Your task to perform on an android device: open app "Clock" Image 0: 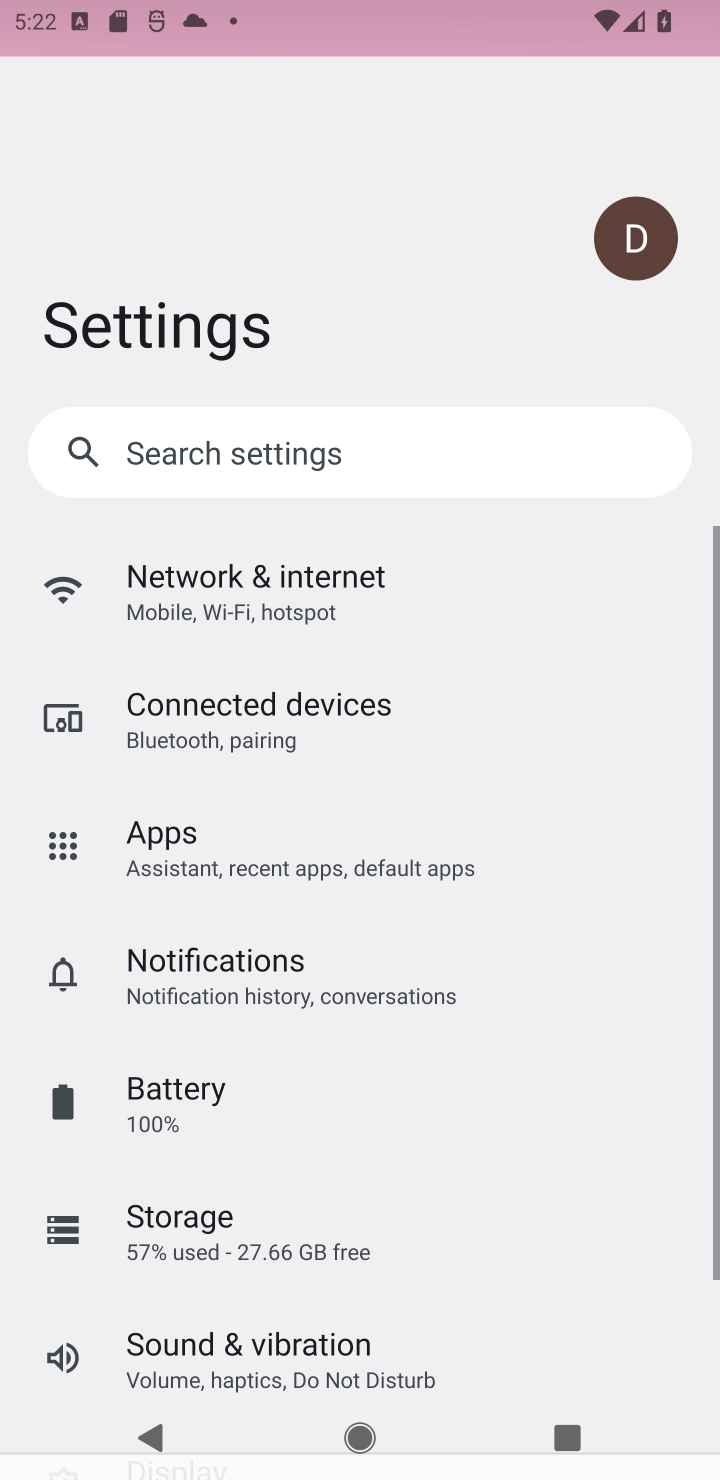
Step 0: press home button
Your task to perform on an android device: open app "Clock" Image 1: 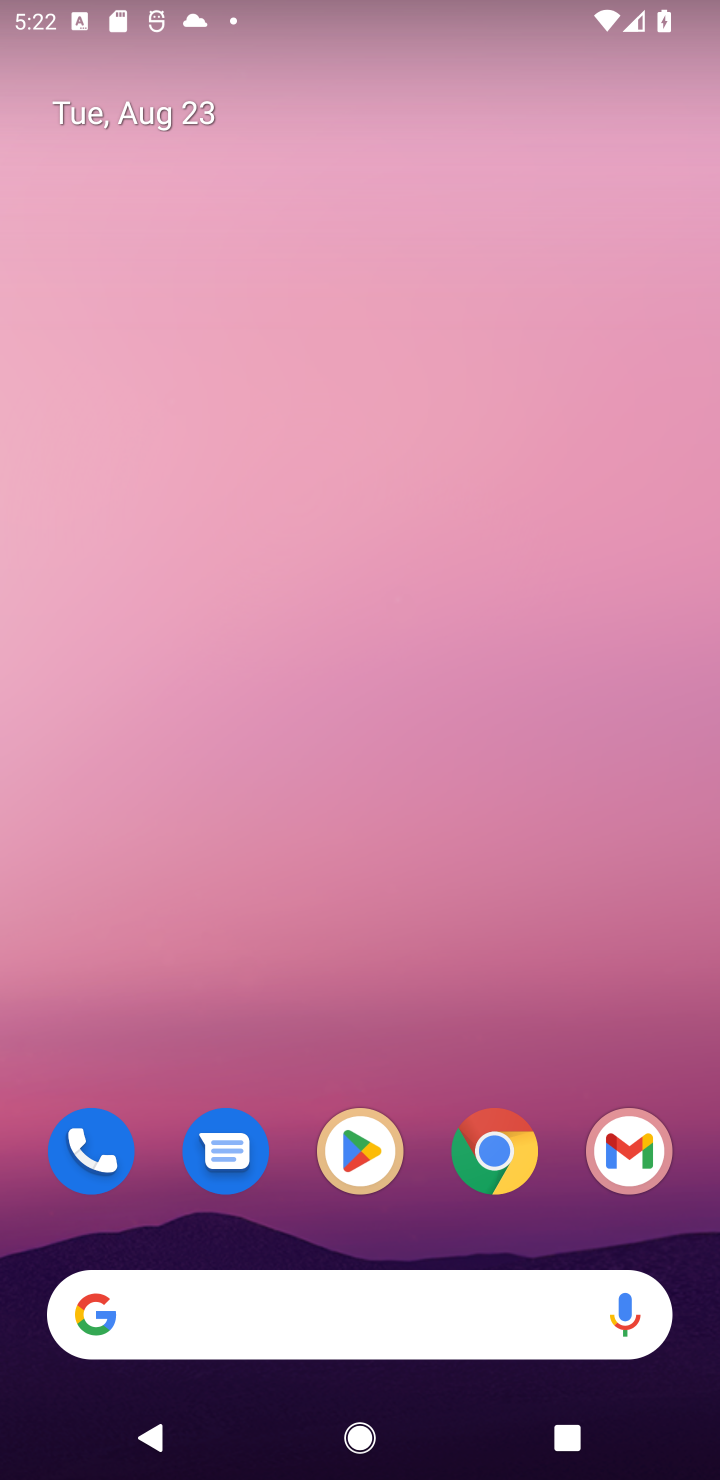
Step 1: click (365, 1162)
Your task to perform on an android device: open app "Clock" Image 2: 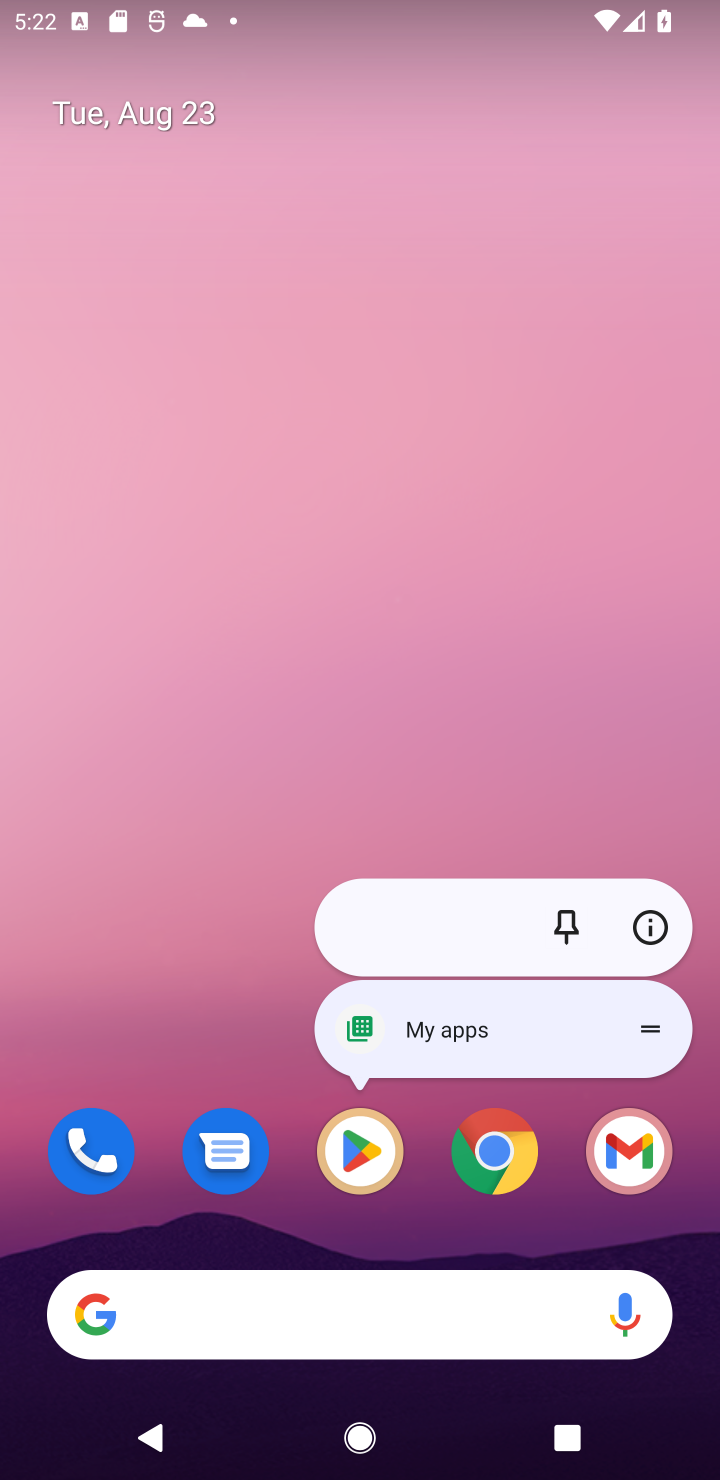
Step 2: click (377, 1157)
Your task to perform on an android device: open app "Clock" Image 3: 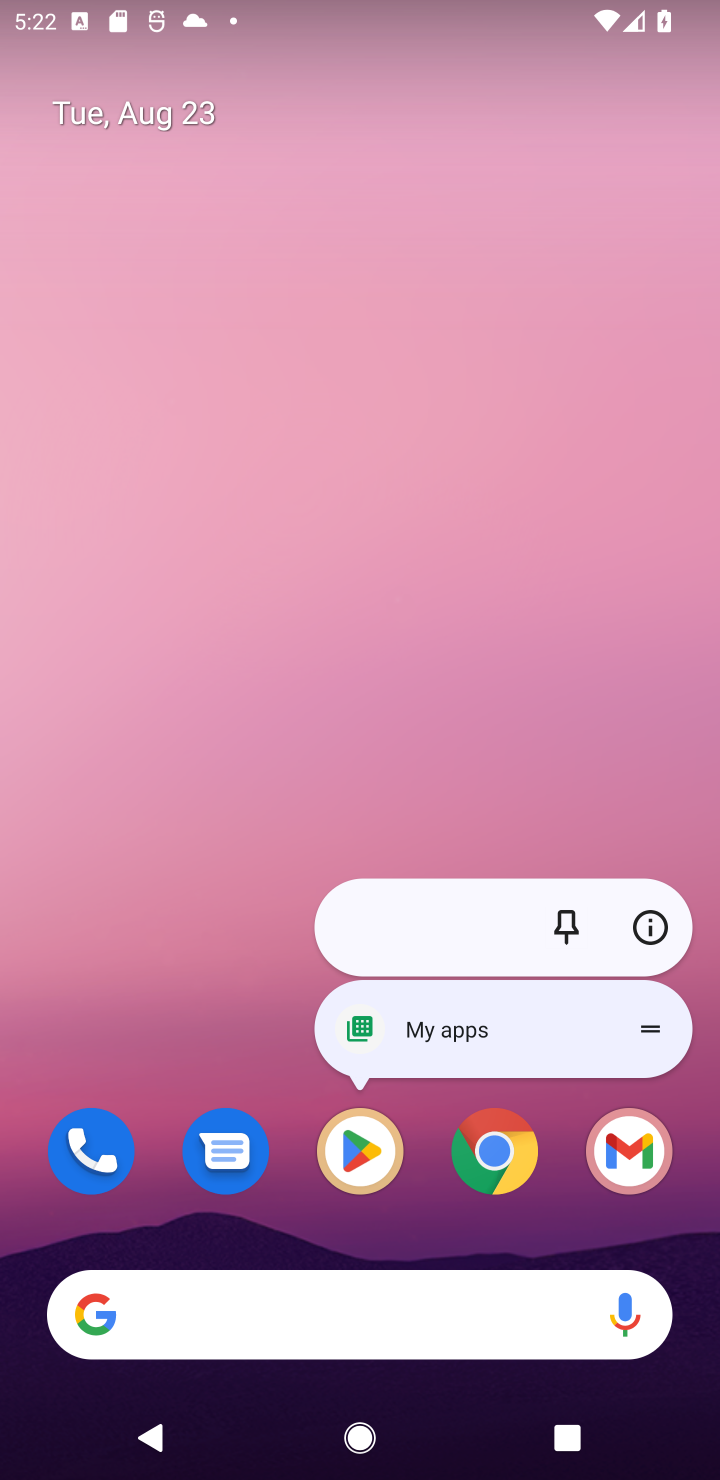
Step 3: click (344, 1163)
Your task to perform on an android device: open app "Clock" Image 4: 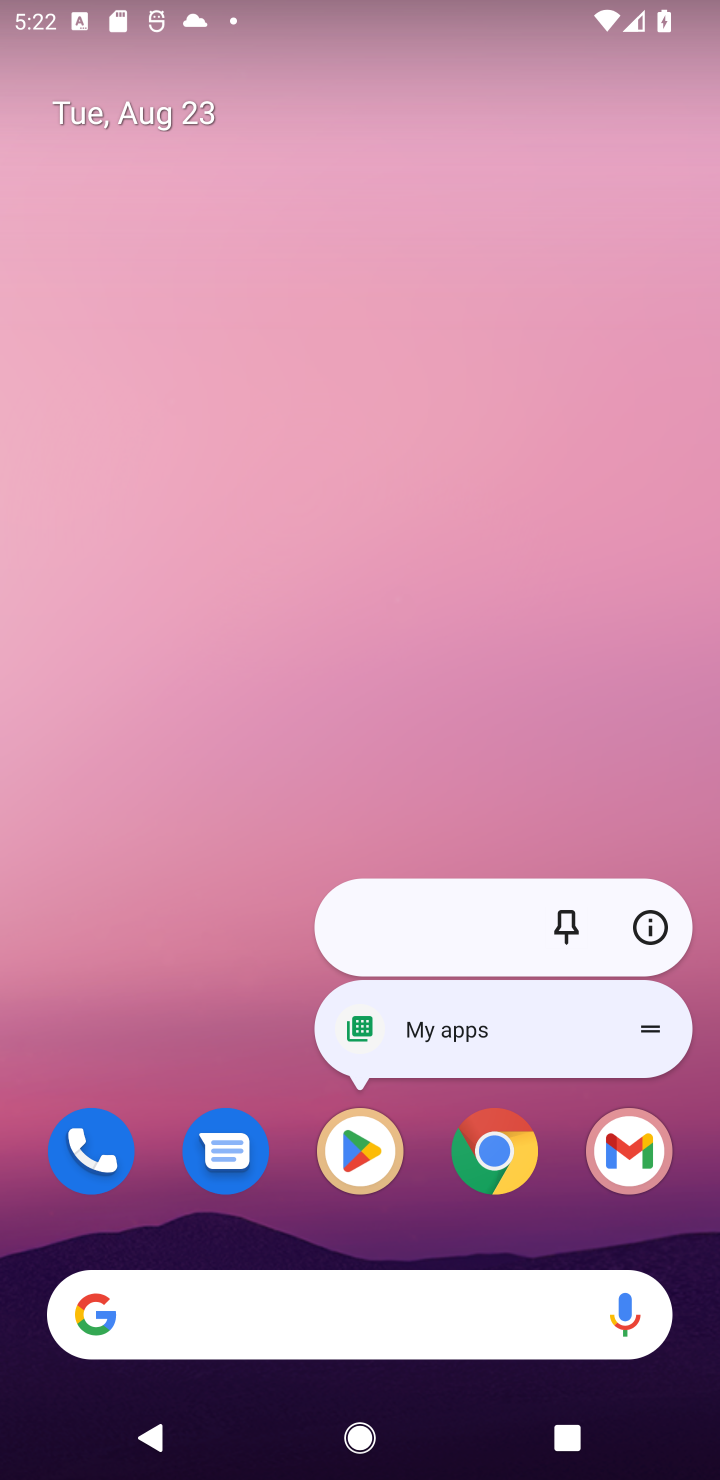
Step 4: click (345, 1168)
Your task to perform on an android device: open app "Clock" Image 5: 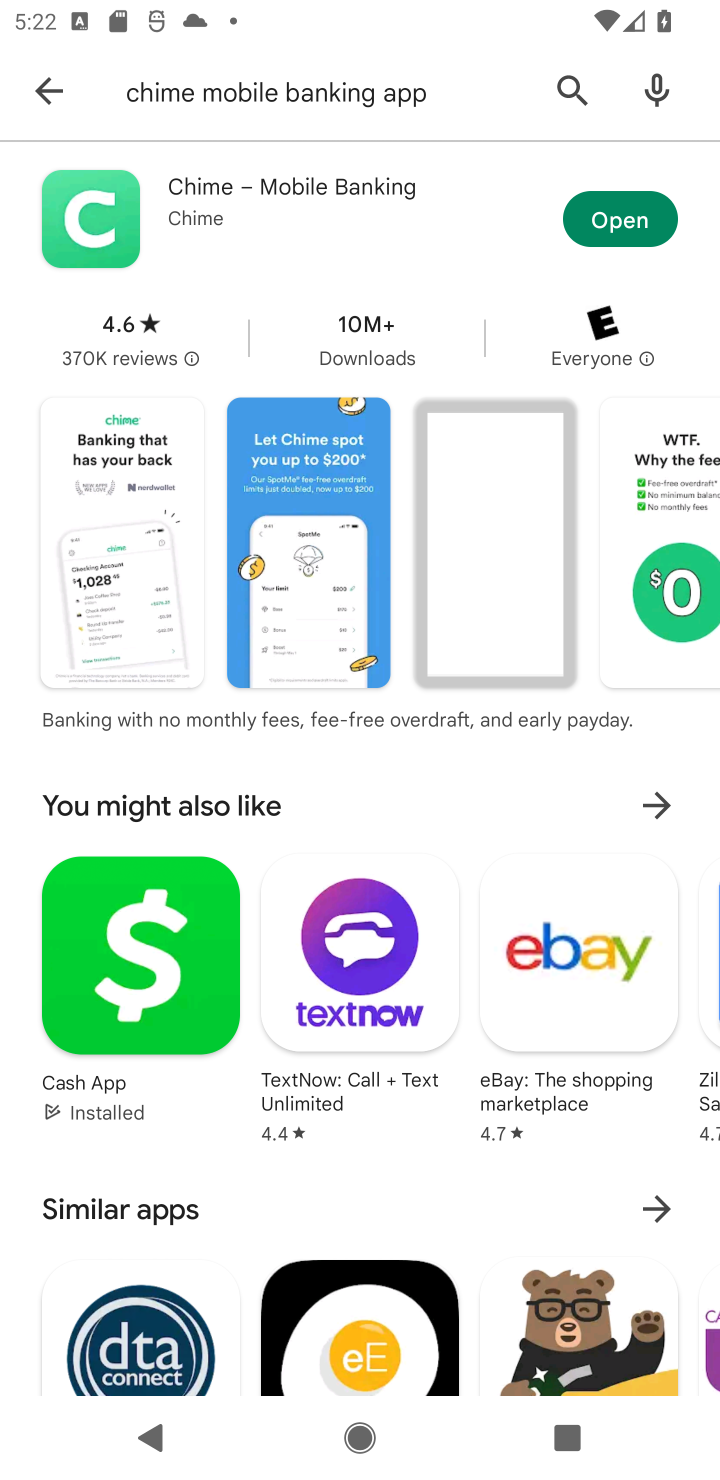
Step 5: click (569, 79)
Your task to perform on an android device: open app "Clock" Image 6: 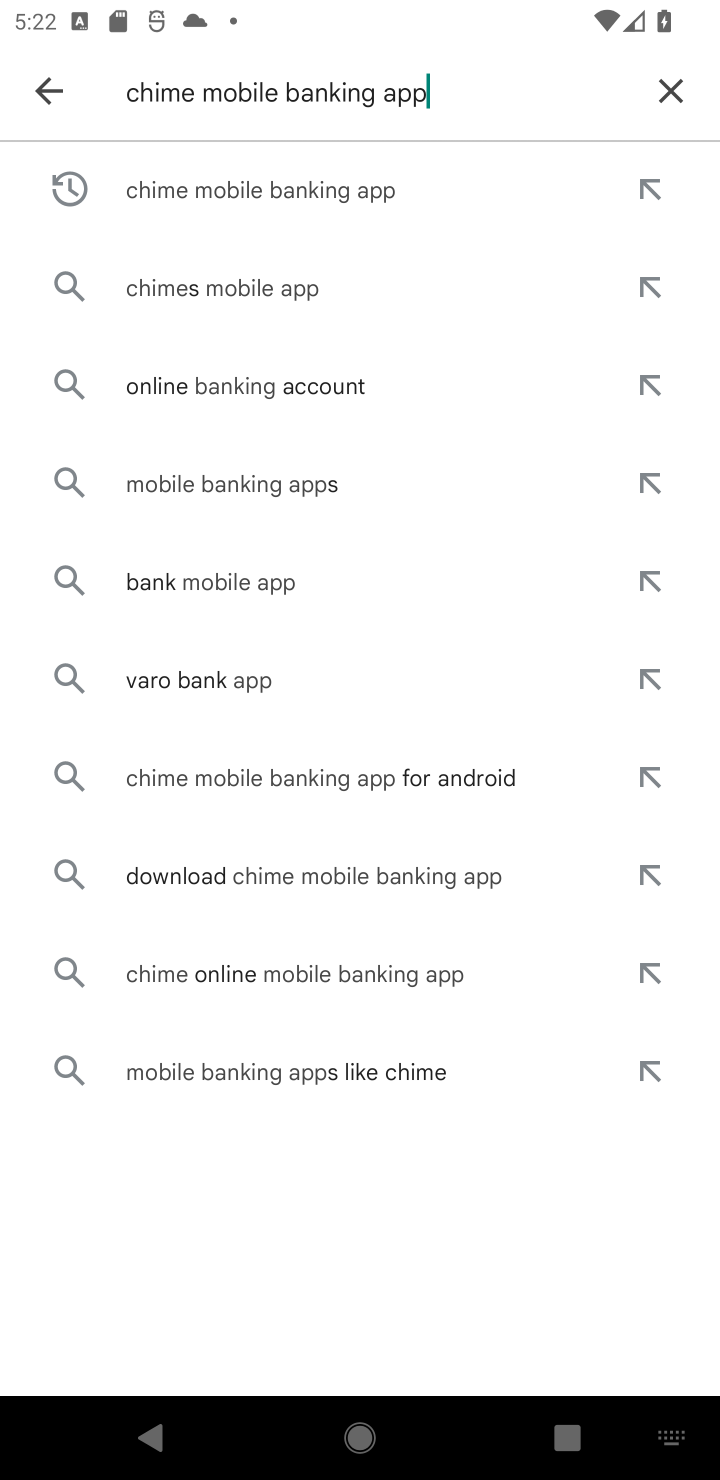
Step 6: click (663, 68)
Your task to perform on an android device: open app "Clock" Image 7: 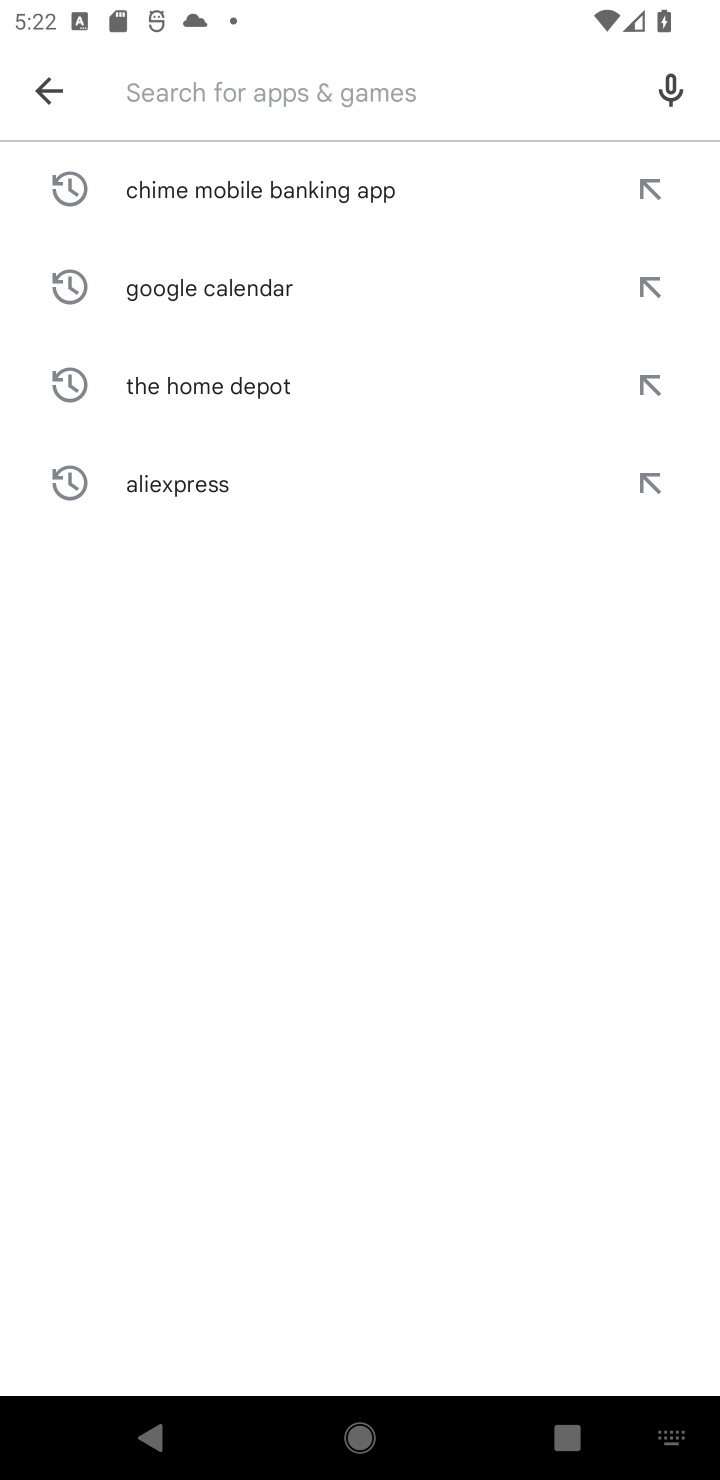
Step 7: type "Clock"
Your task to perform on an android device: open app "Clock" Image 8: 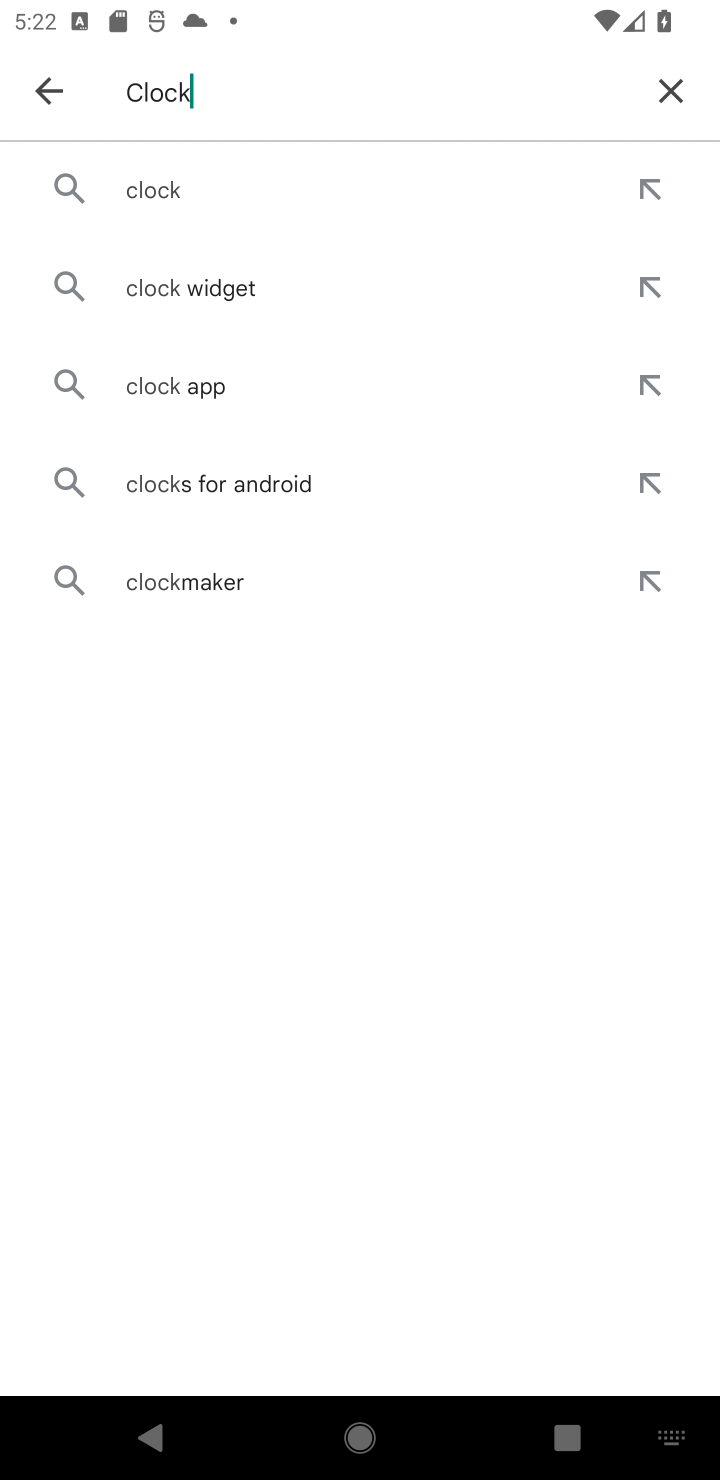
Step 8: click (117, 187)
Your task to perform on an android device: open app "Clock" Image 9: 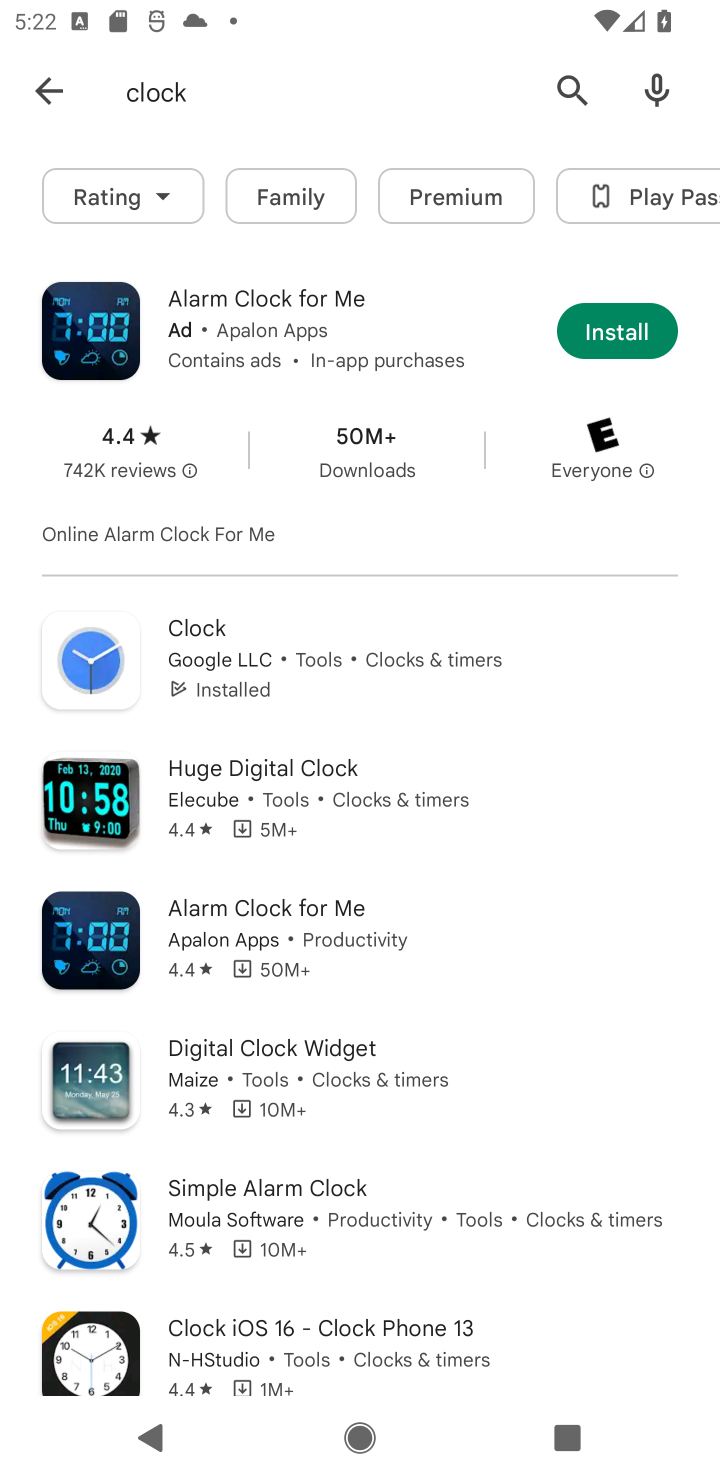
Step 9: click (265, 662)
Your task to perform on an android device: open app "Clock" Image 10: 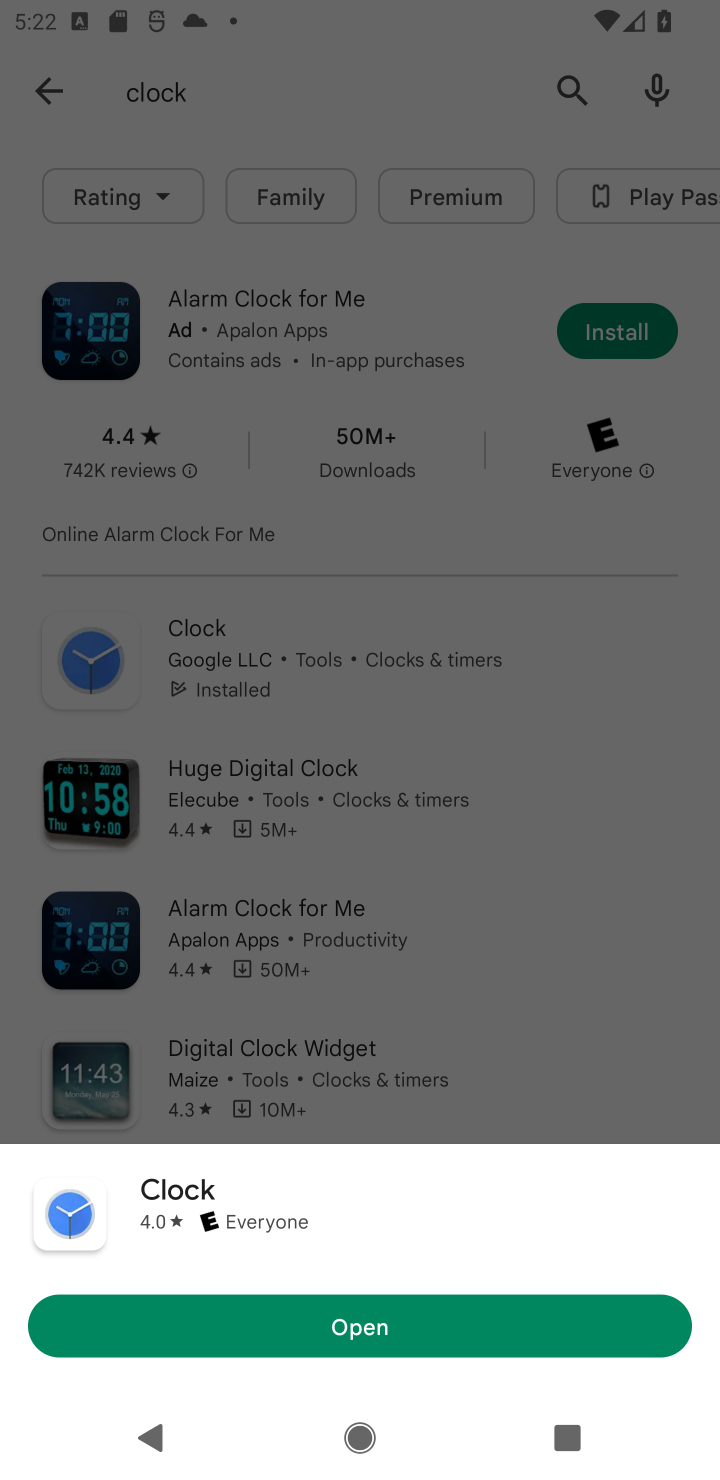
Step 10: click (369, 1331)
Your task to perform on an android device: open app "Clock" Image 11: 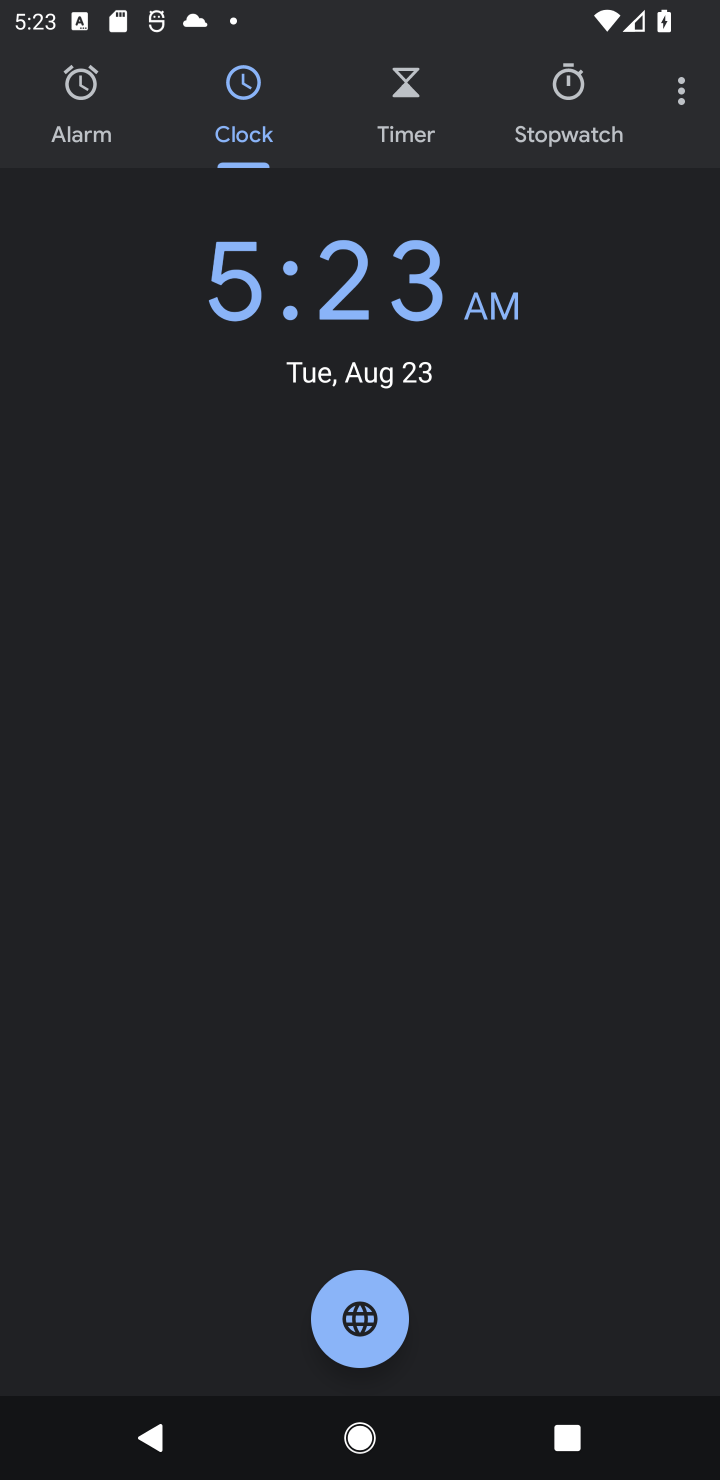
Step 11: task complete